Your task to perform on an android device: check data usage Image 0: 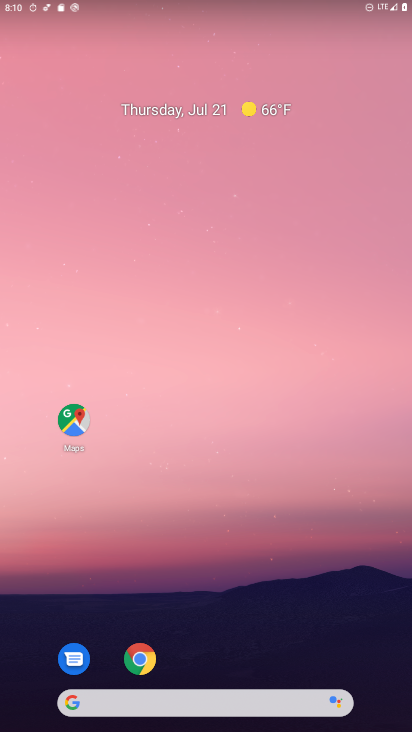
Step 0: drag from (207, 665) to (225, 110)
Your task to perform on an android device: check data usage Image 1: 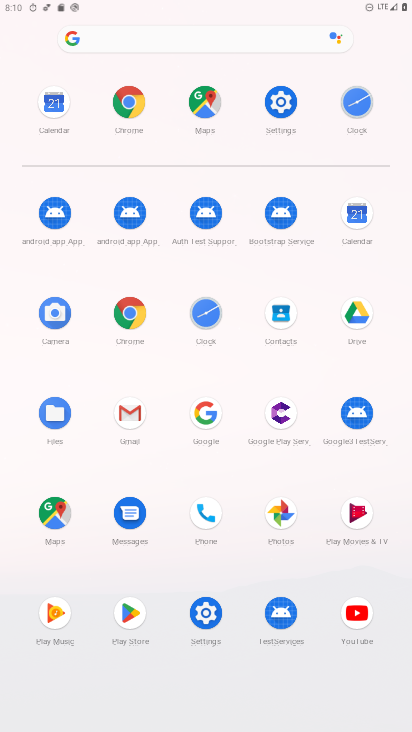
Step 1: click (279, 108)
Your task to perform on an android device: check data usage Image 2: 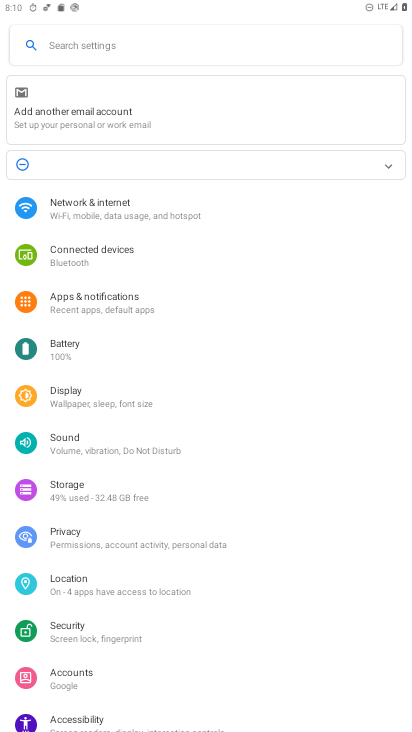
Step 2: click (141, 214)
Your task to perform on an android device: check data usage Image 3: 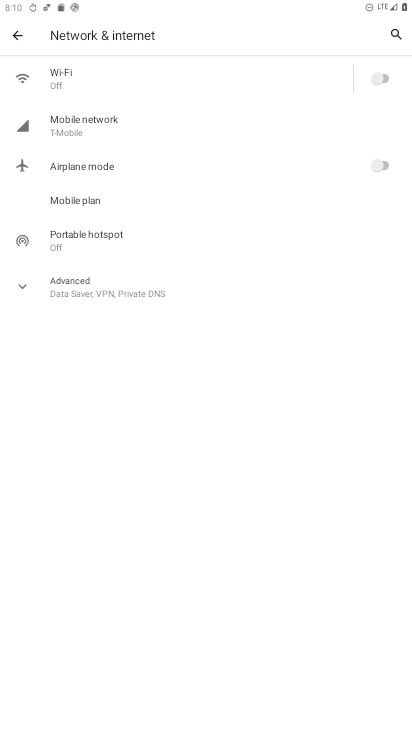
Step 3: click (168, 128)
Your task to perform on an android device: check data usage Image 4: 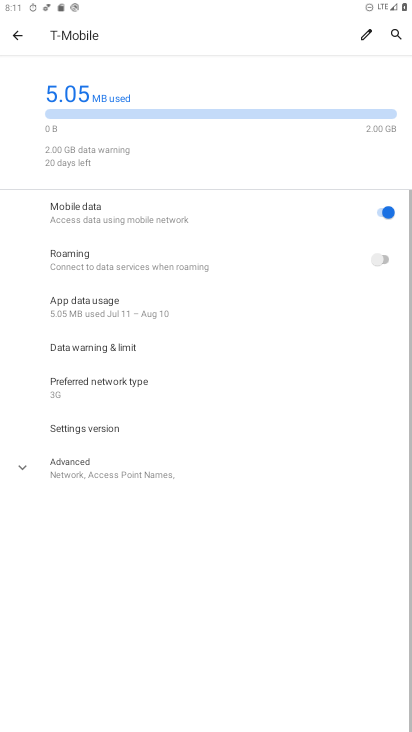
Step 4: task complete